Your task to perform on an android device: Show me recent news Image 0: 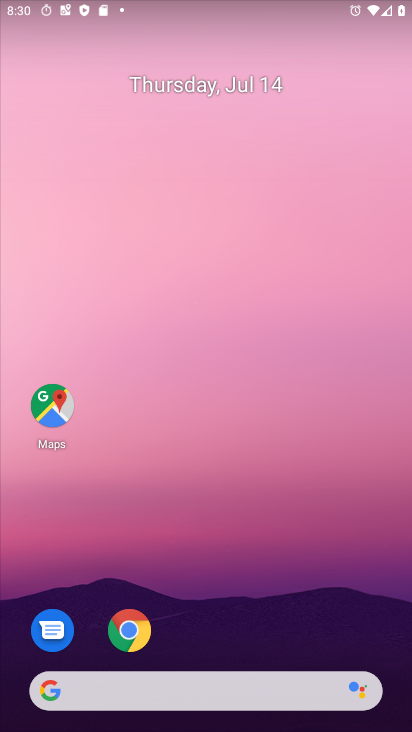
Step 0: drag from (219, 595) to (204, 271)
Your task to perform on an android device: Show me recent news Image 1: 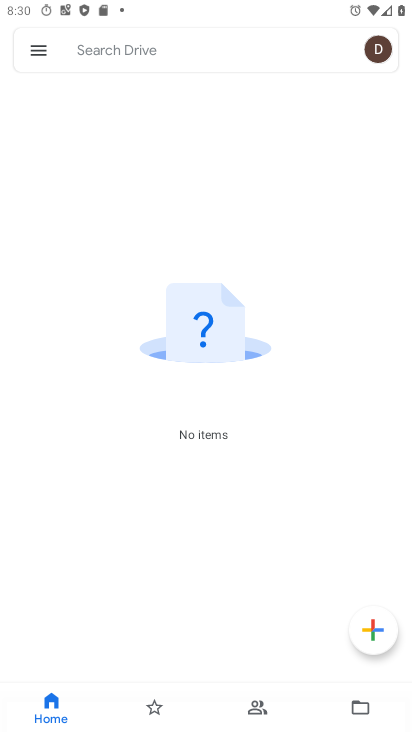
Step 1: task complete